Your task to perform on an android device: set an alarm Image 0: 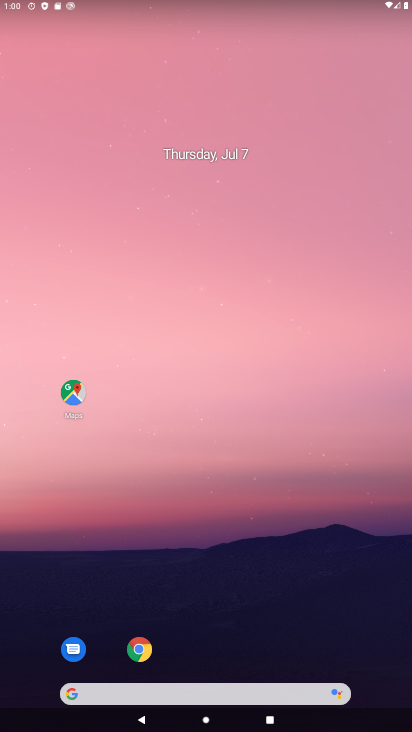
Step 0: drag from (184, 675) to (92, 40)
Your task to perform on an android device: set an alarm Image 1: 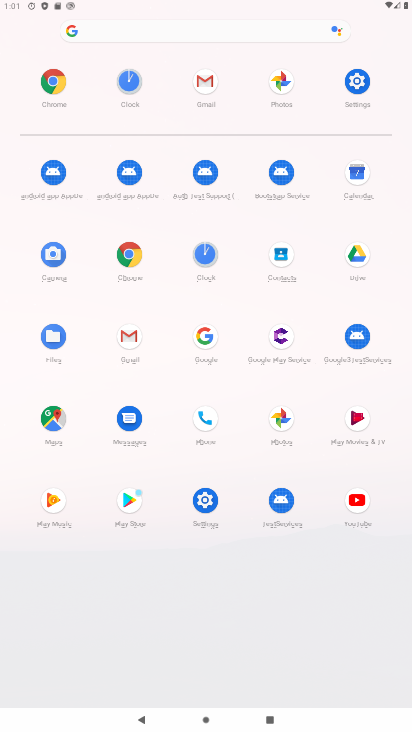
Step 1: click (206, 255)
Your task to perform on an android device: set an alarm Image 2: 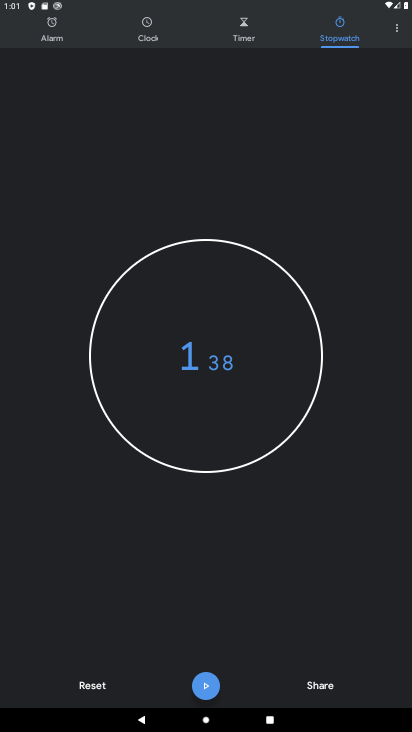
Step 2: click (45, 35)
Your task to perform on an android device: set an alarm Image 3: 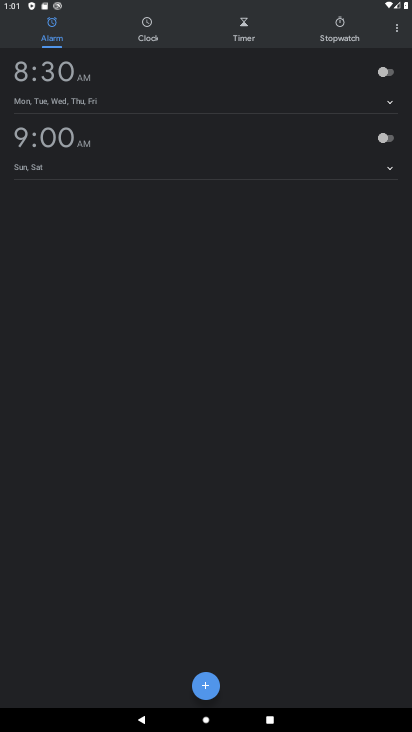
Step 3: click (208, 685)
Your task to perform on an android device: set an alarm Image 4: 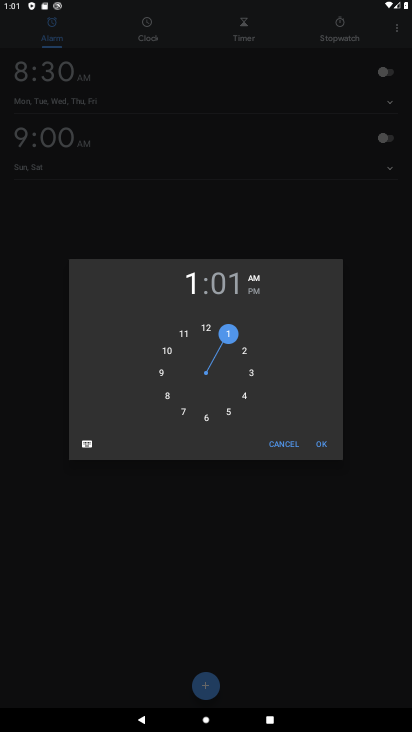
Step 4: click (322, 435)
Your task to perform on an android device: set an alarm Image 5: 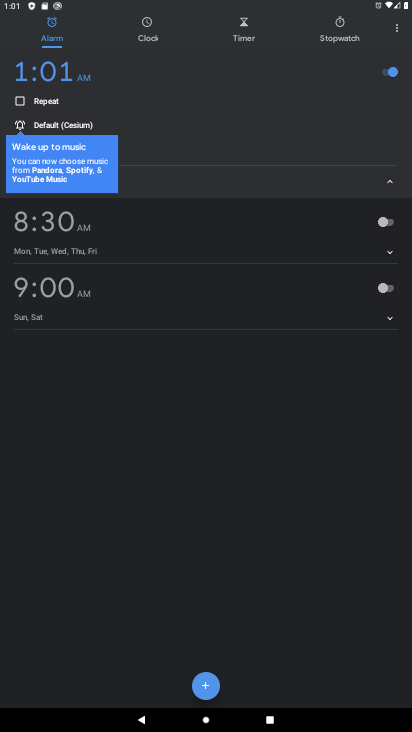
Step 5: task complete